Your task to perform on an android device: install app "Calculator" Image 0: 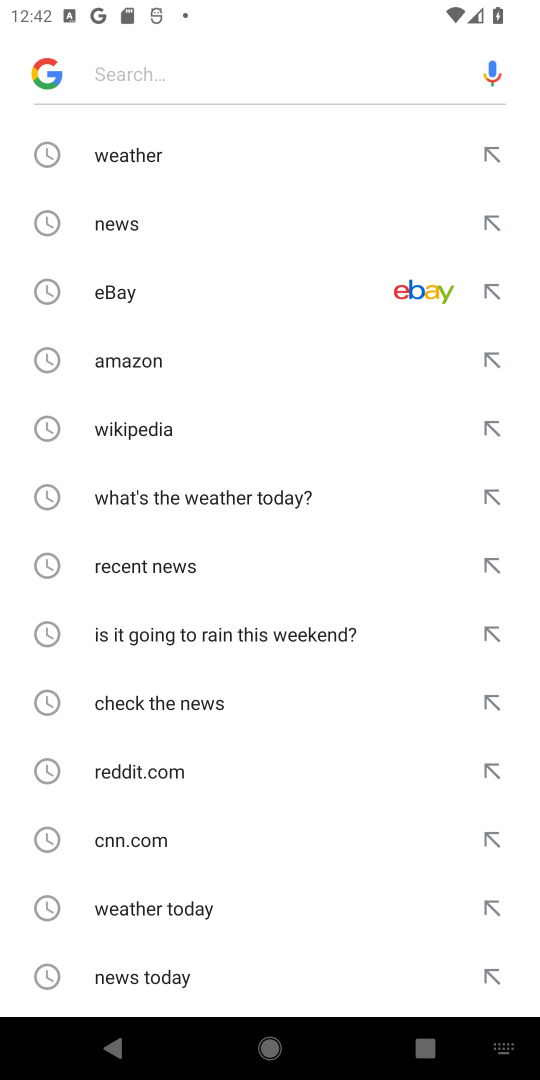
Step 0: press back button
Your task to perform on an android device: install app "Calculator" Image 1: 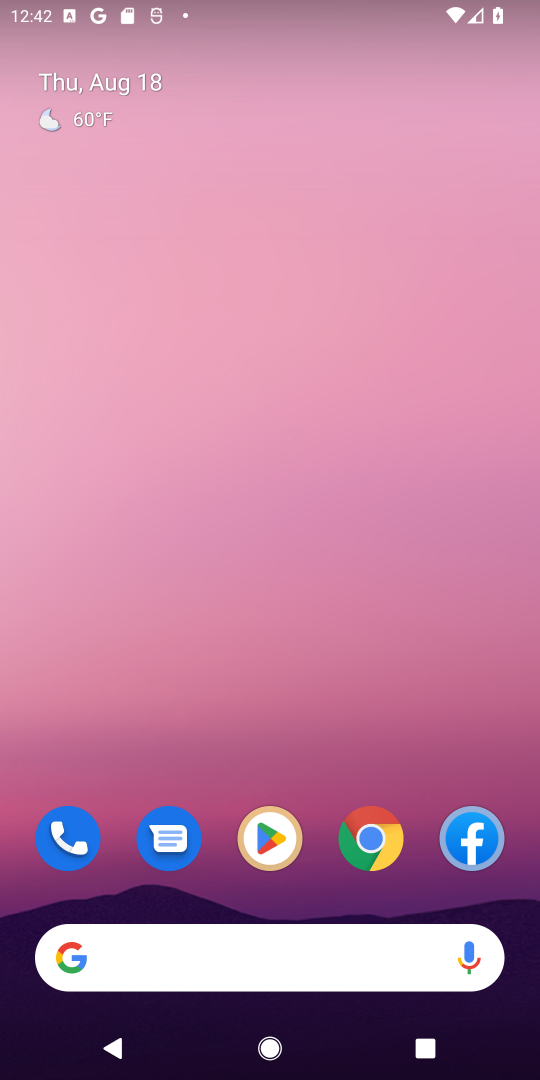
Step 1: press home button
Your task to perform on an android device: install app "Calculator" Image 2: 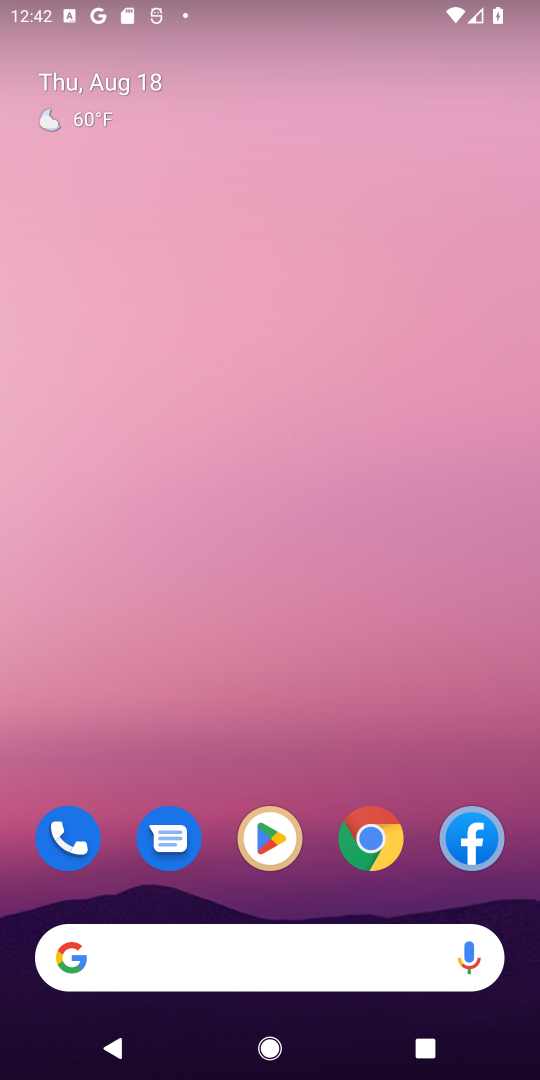
Step 2: click (286, 842)
Your task to perform on an android device: install app "Calculator" Image 3: 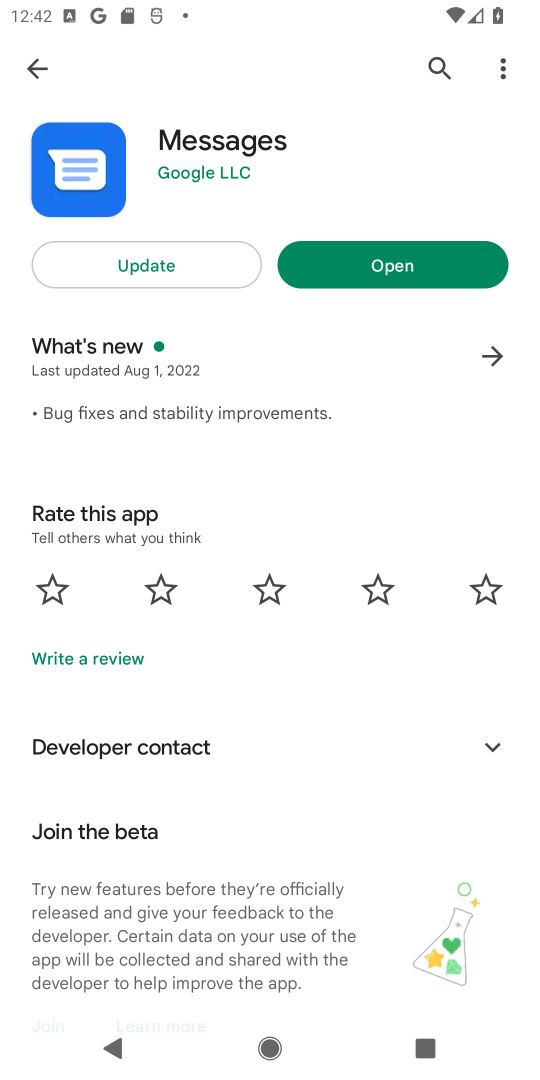
Step 3: click (427, 68)
Your task to perform on an android device: install app "Calculator" Image 4: 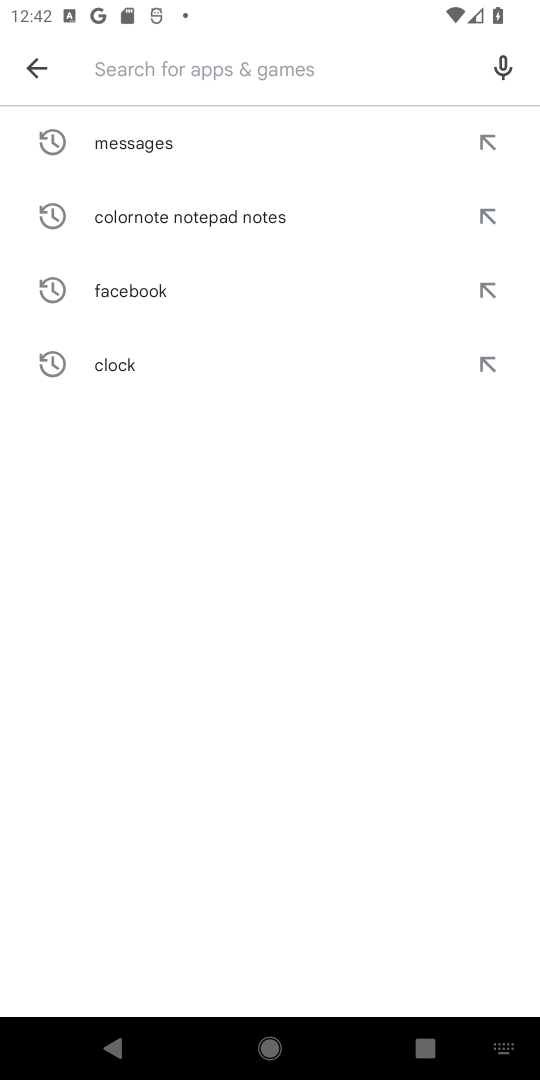
Step 4: type "Calculator"
Your task to perform on an android device: install app "Calculator" Image 5: 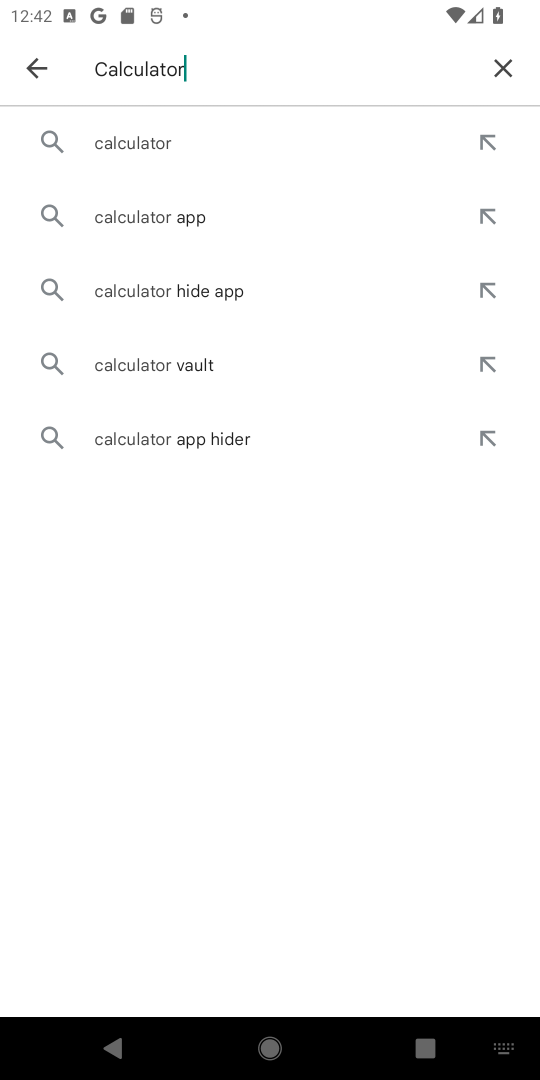
Step 5: type ""
Your task to perform on an android device: install app "Calculator" Image 6: 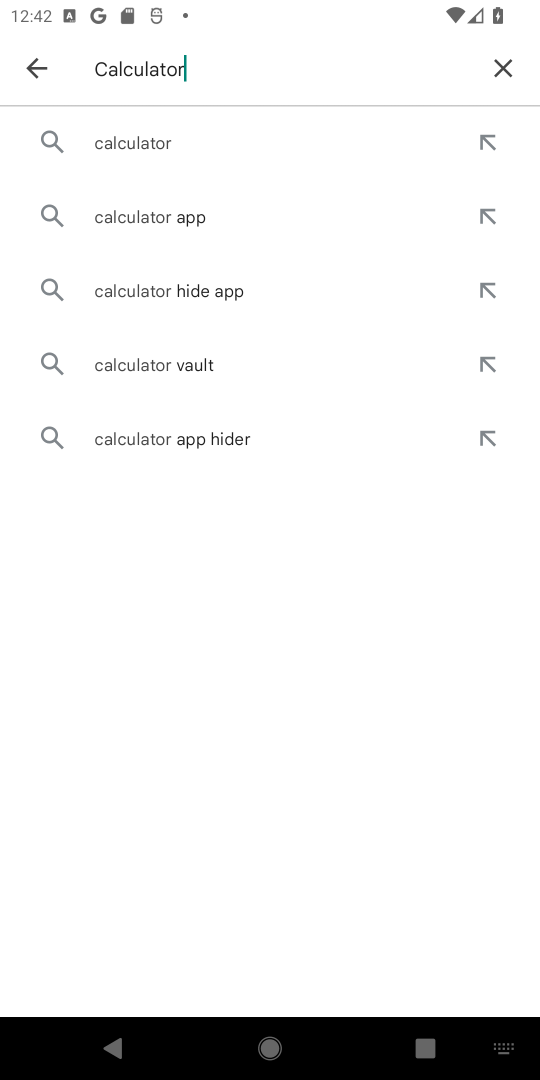
Step 6: click (121, 135)
Your task to perform on an android device: install app "Calculator" Image 7: 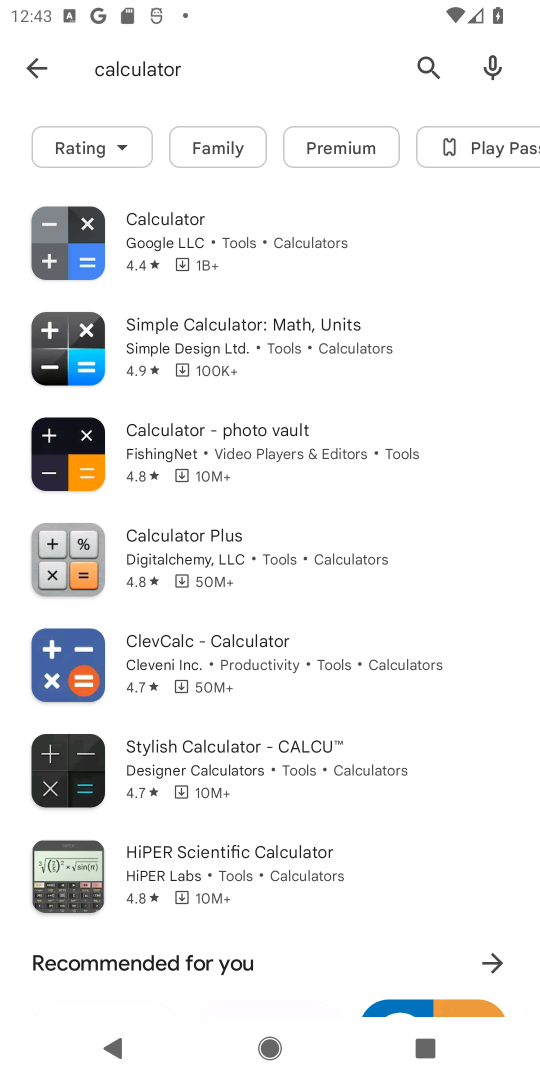
Step 7: click (225, 225)
Your task to perform on an android device: install app "Calculator" Image 8: 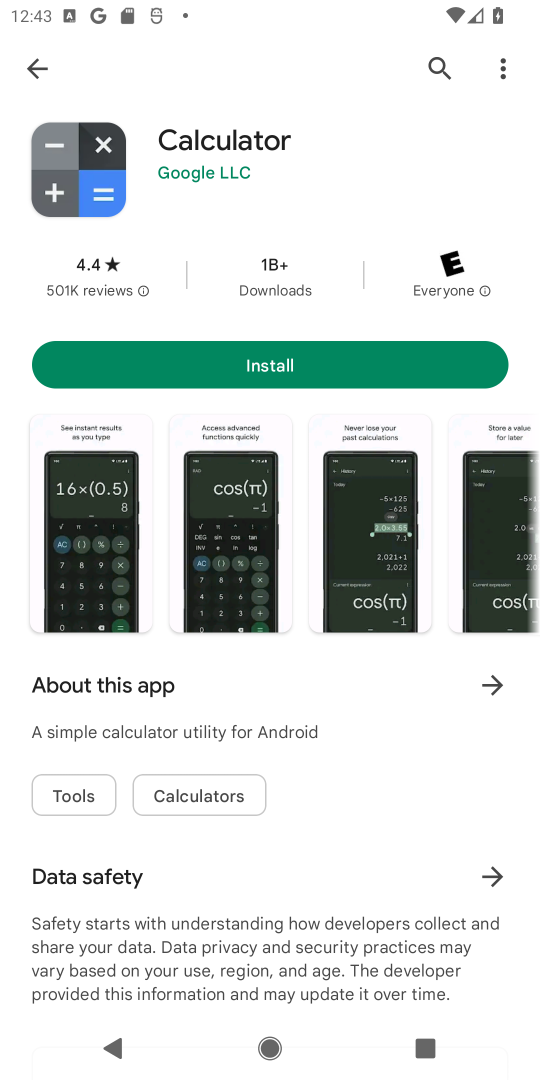
Step 8: click (324, 355)
Your task to perform on an android device: install app "Calculator" Image 9: 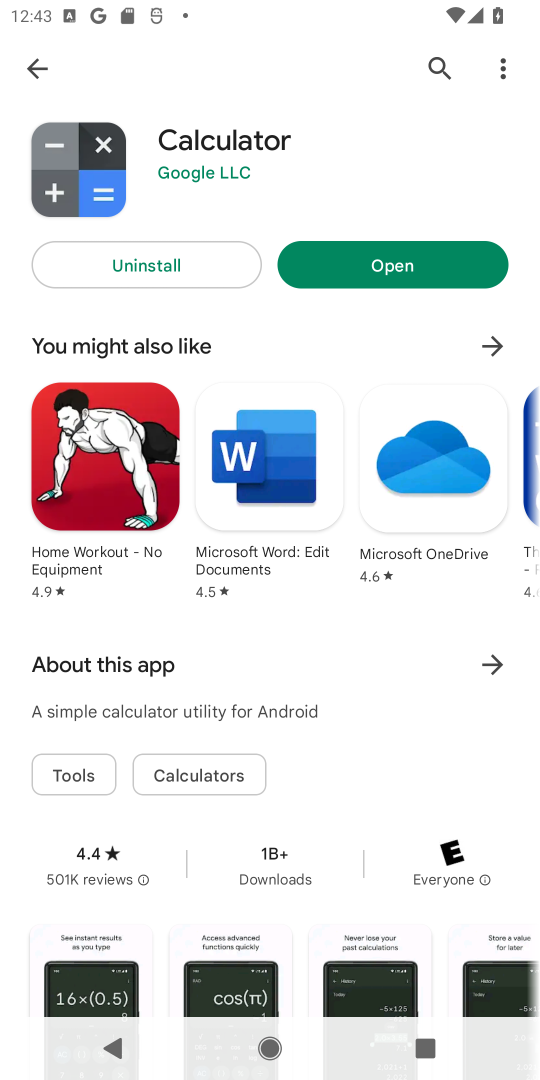
Step 9: task complete